Your task to perform on an android device: install app "Chime – Mobile Banking" Image 0: 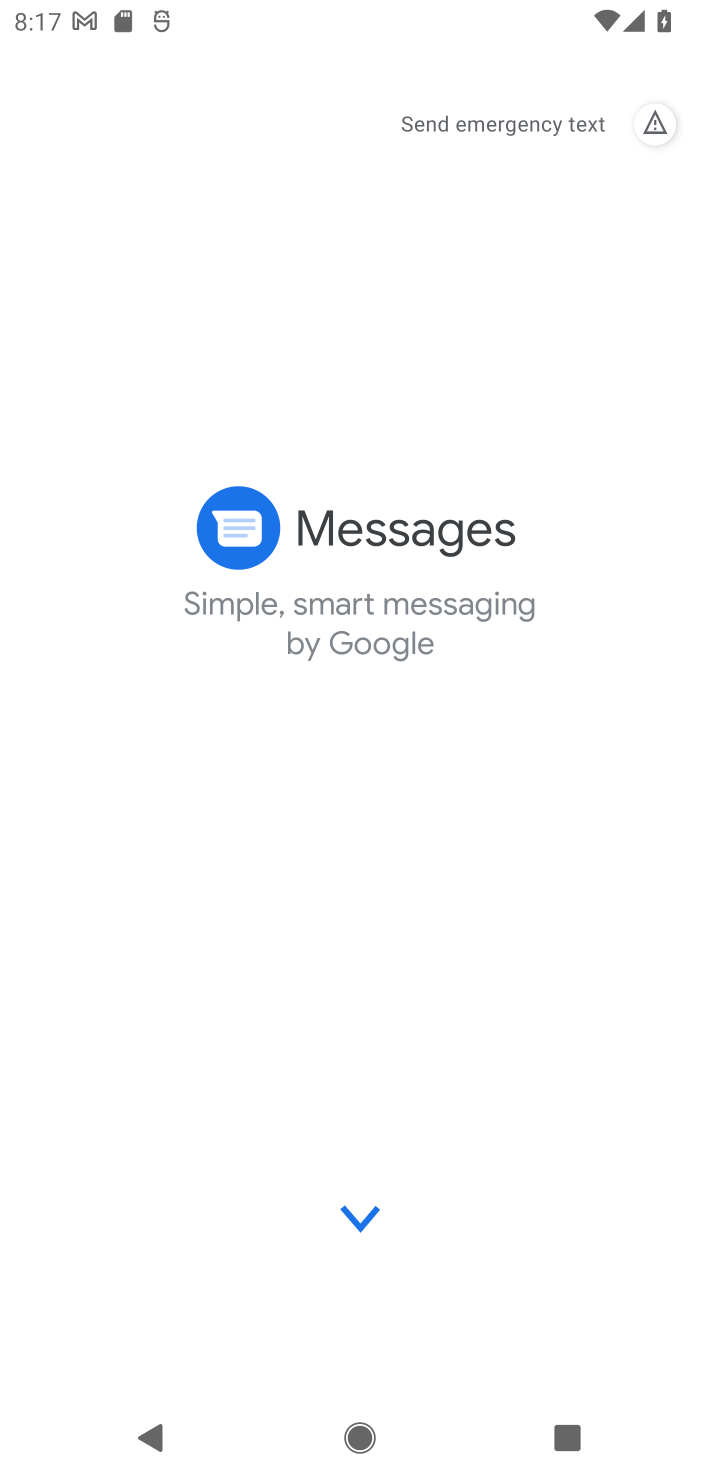
Step 0: press home button
Your task to perform on an android device: install app "Chime – Mobile Banking" Image 1: 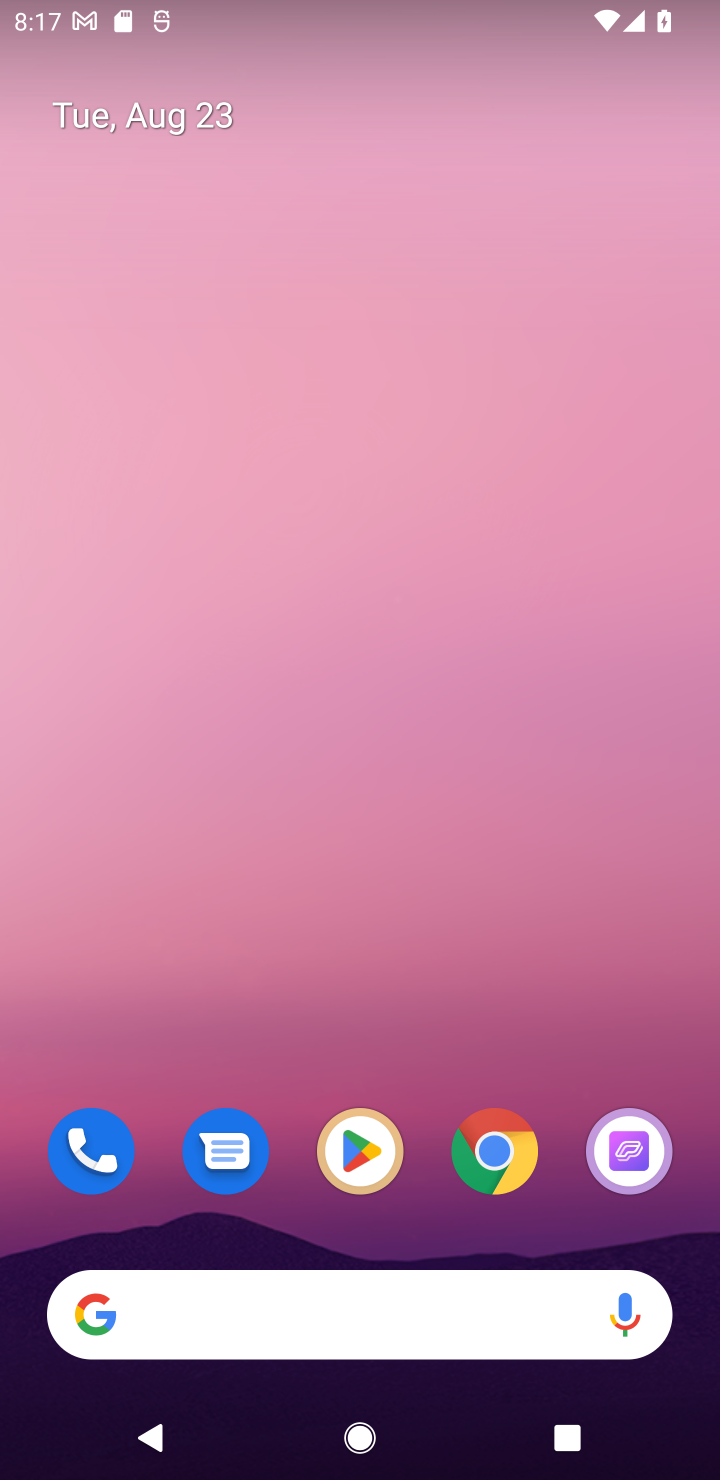
Step 1: press home button
Your task to perform on an android device: install app "Chime – Mobile Banking" Image 2: 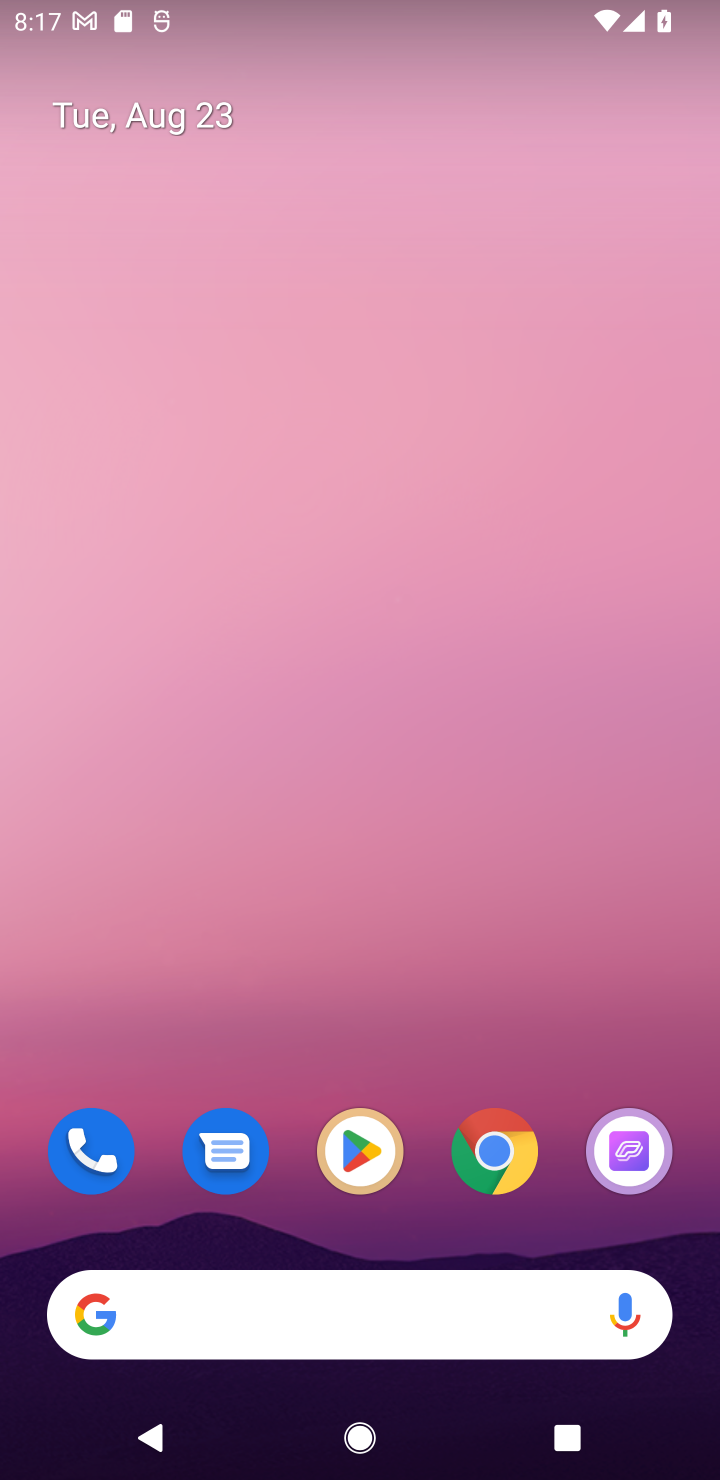
Step 2: click (363, 1155)
Your task to perform on an android device: install app "Chime – Mobile Banking" Image 3: 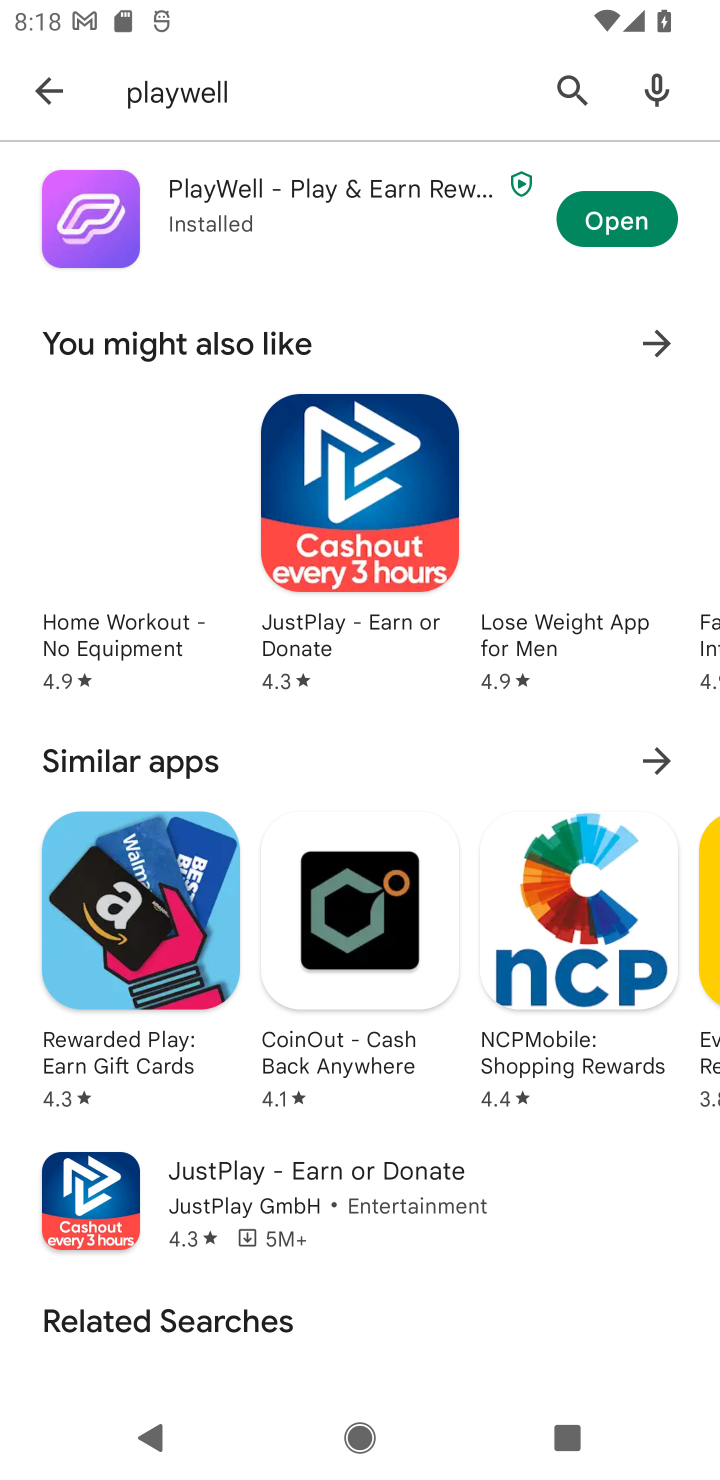
Step 3: click (52, 88)
Your task to perform on an android device: install app "Chime – Mobile Banking" Image 4: 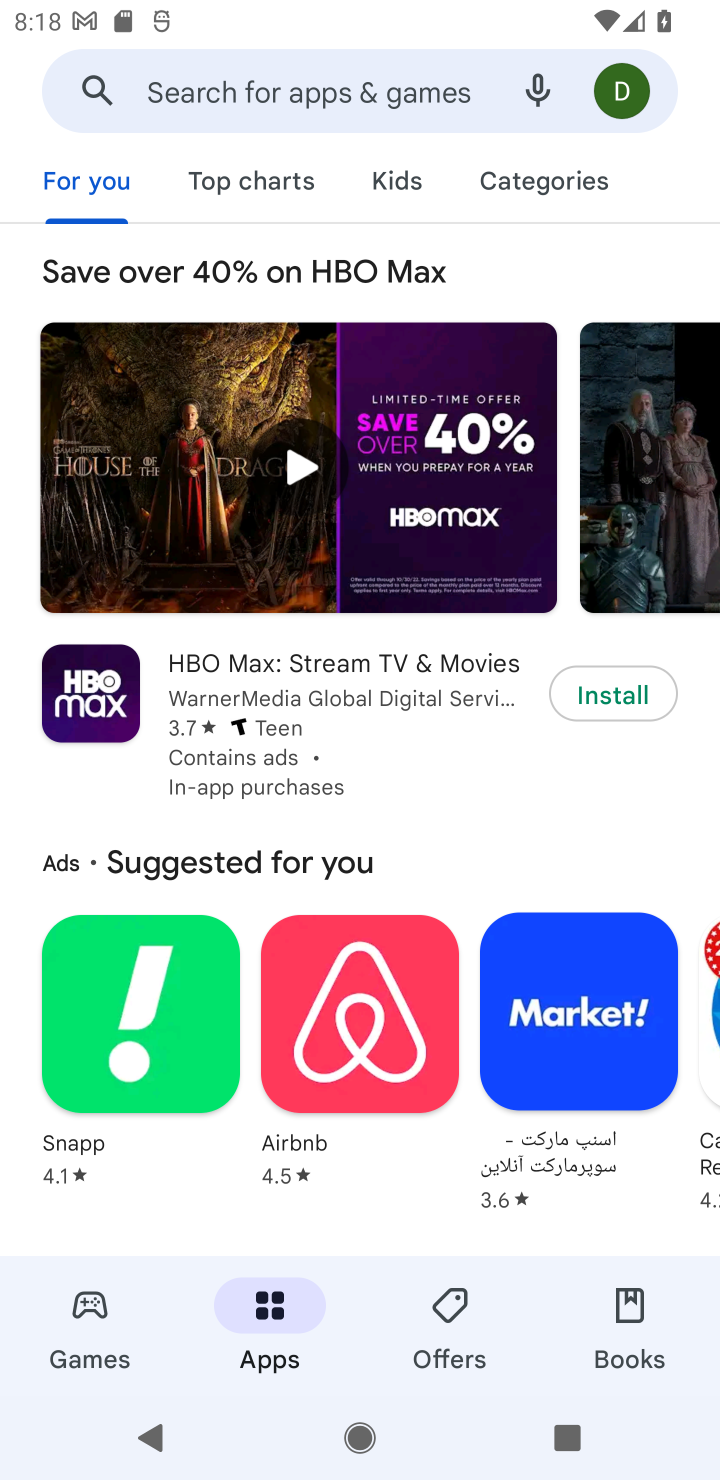
Step 4: click (318, 91)
Your task to perform on an android device: install app "Chime – Mobile Banking" Image 5: 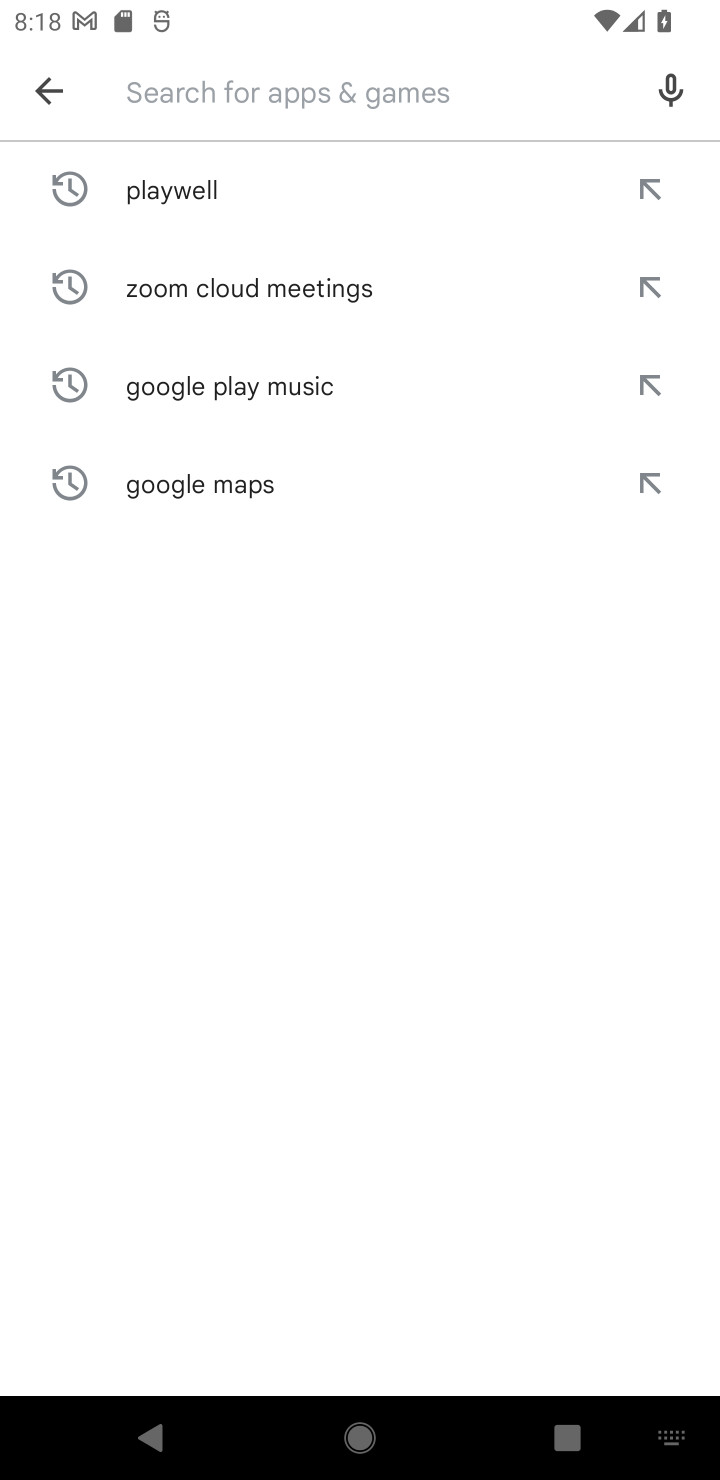
Step 5: type "Chime – Mobile Banking"
Your task to perform on an android device: install app "Chime – Mobile Banking" Image 6: 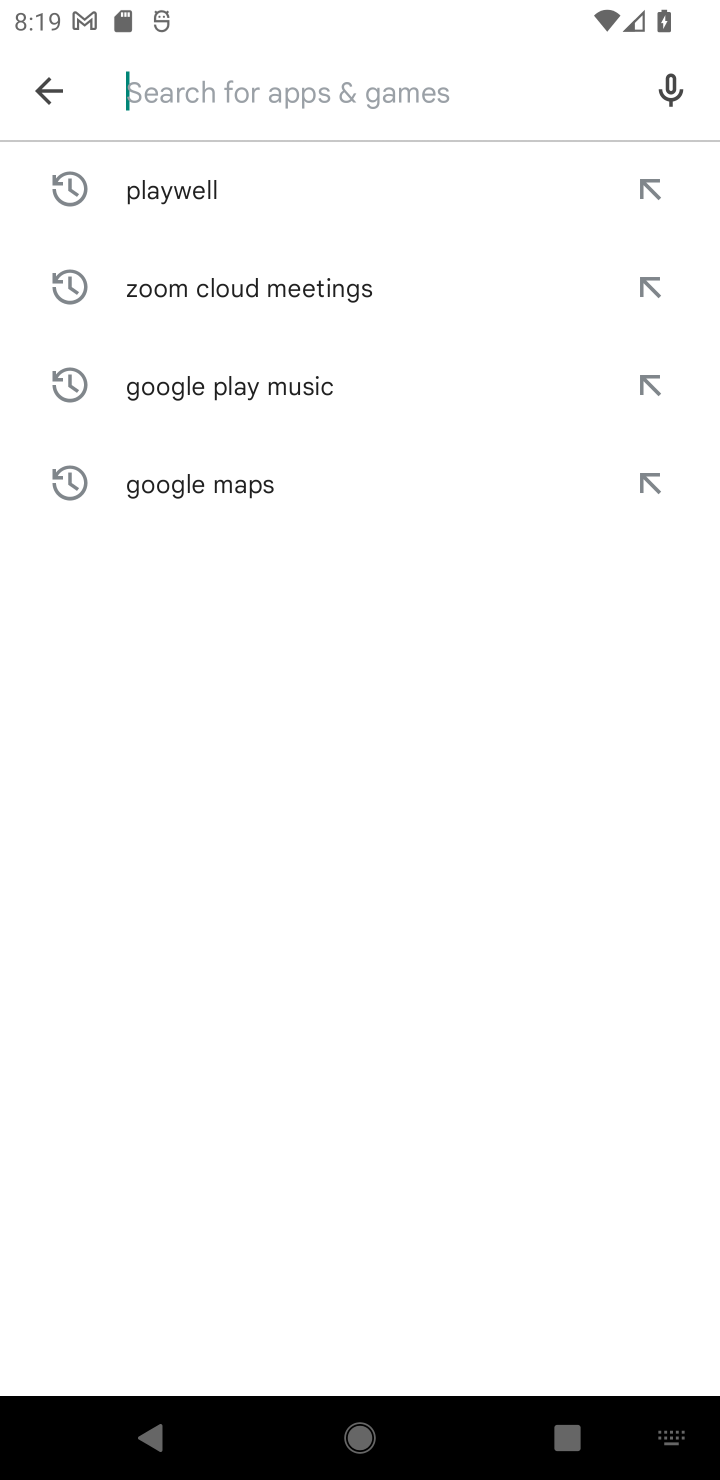
Step 6: task complete